Your task to perform on an android device: Search for sushi restaurants on Maps Image 0: 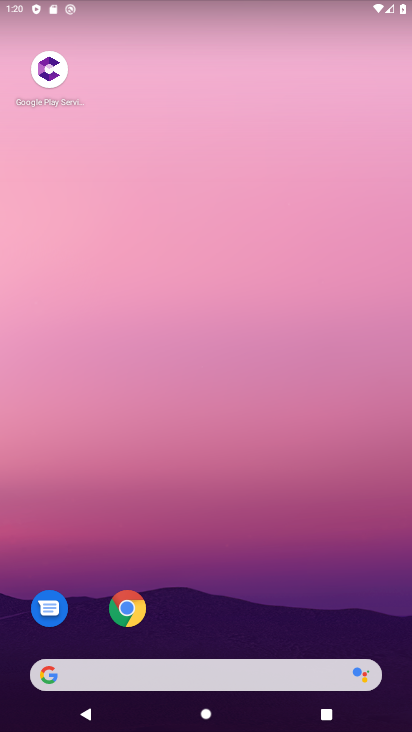
Step 0: drag from (223, 575) to (189, 126)
Your task to perform on an android device: Search for sushi restaurants on Maps Image 1: 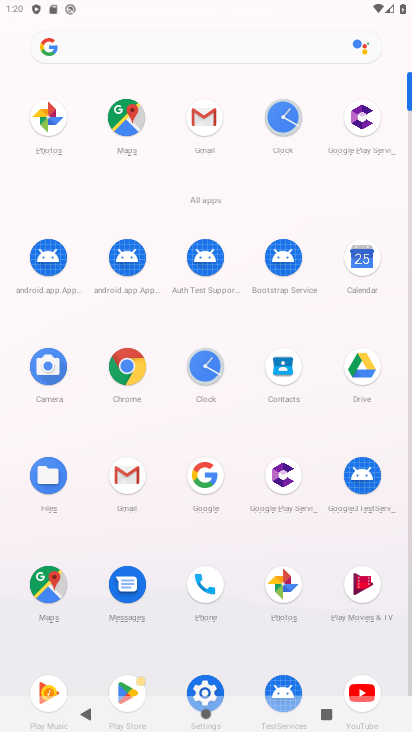
Step 1: click (44, 580)
Your task to perform on an android device: Search for sushi restaurants on Maps Image 2: 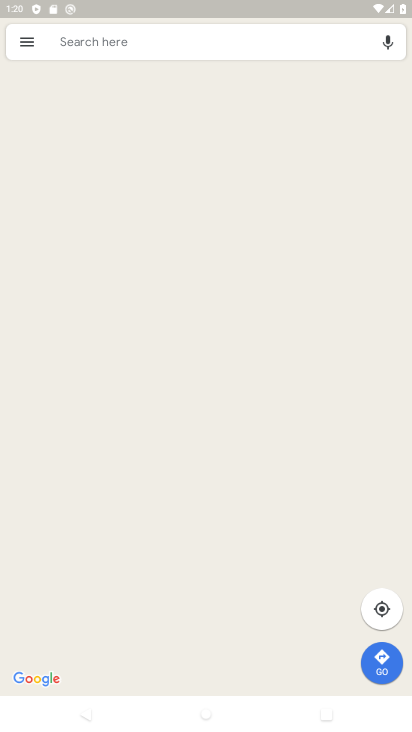
Step 2: click (228, 46)
Your task to perform on an android device: Search for sushi restaurants on Maps Image 3: 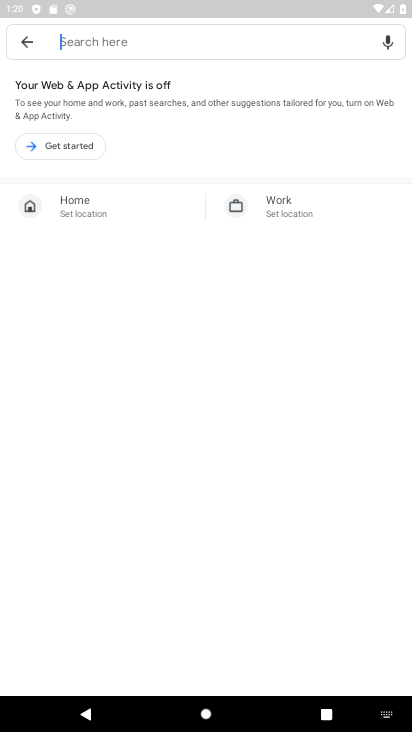
Step 3: type "sushi restaurants"
Your task to perform on an android device: Search for sushi restaurants on Maps Image 4: 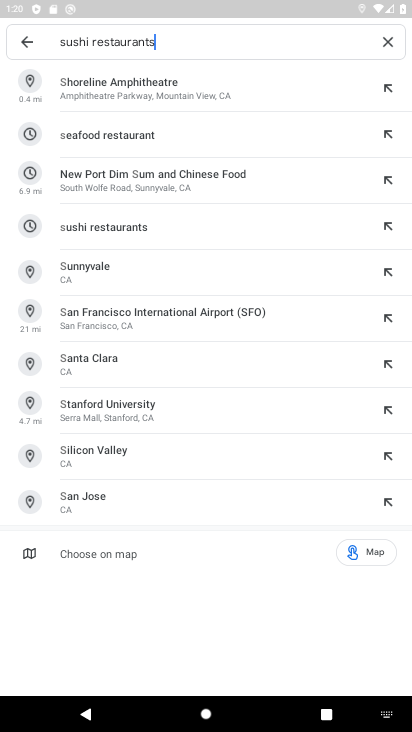
Step 4: press enter
Your task to perform on an android device: Search for sushi restaurants on Maps Image 5: 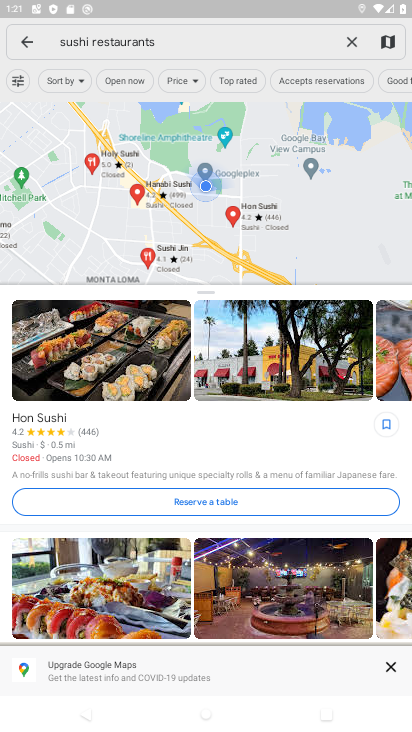
Step 5: task complete